Your task to perform on an android device: Is it going to rain tomorrow? Image 0: 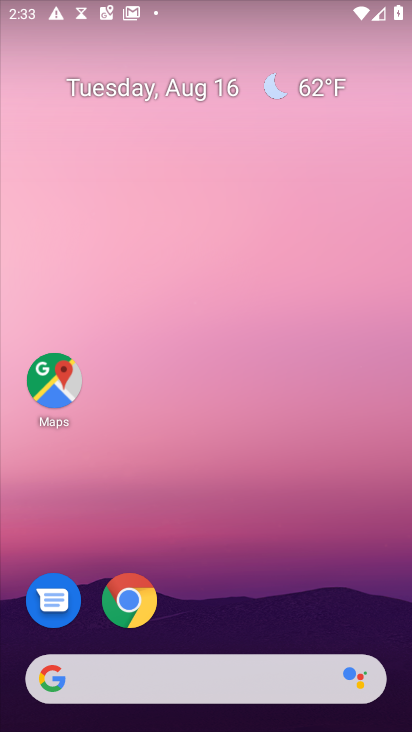
Step 0: click (300, 103)
Your task to perform on an android device: Is it going to rain tomorrow? Image 1: 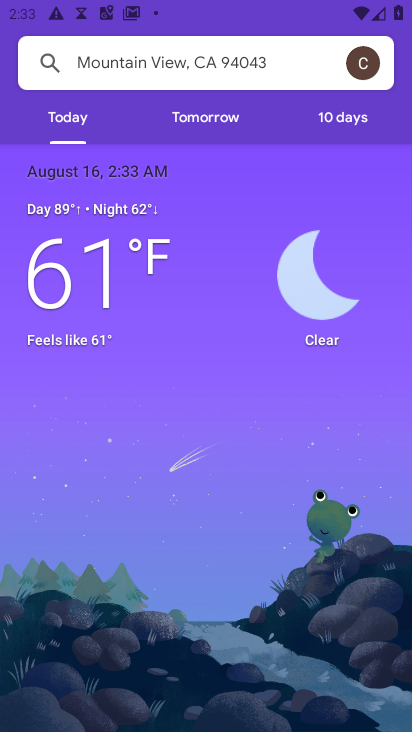
Step 1: click (179, 117)
Your task to perform on an android device: Is it going to rain tomorrow? Image 2: 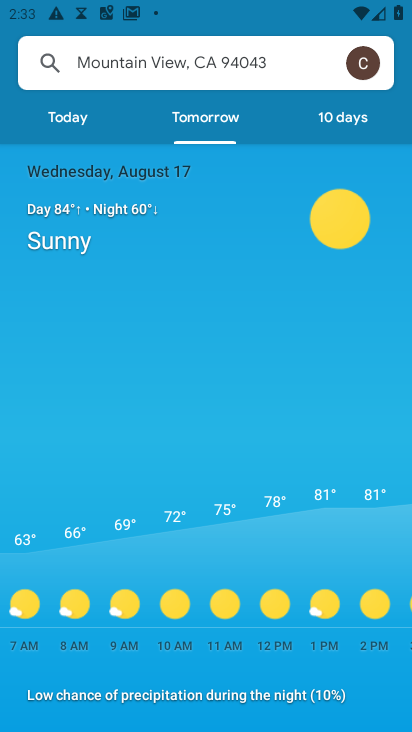
Step 2: task complete